Your task to perform on an android device: Go to battery settings Image 0: 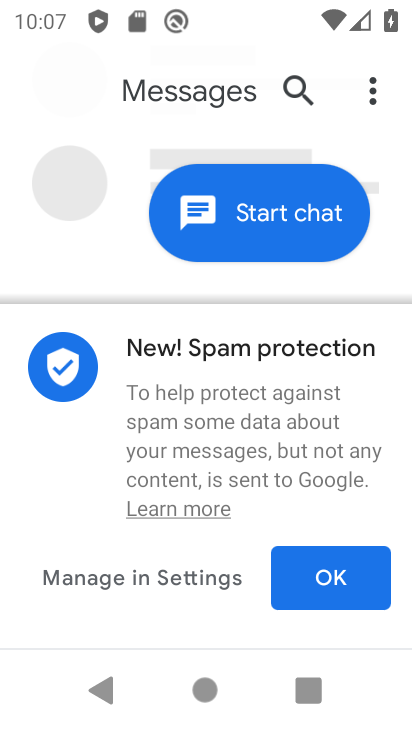
Step 0: press home button
Your task to perform on an android device: Go to battery settings Image 1: 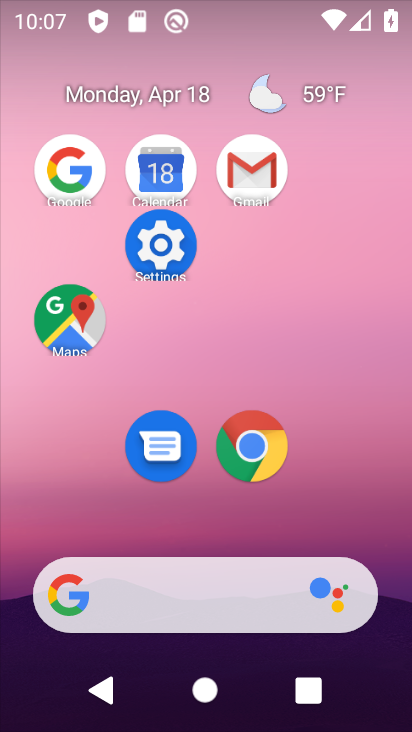
Step 1: click (165, 231)
Your task to perform on an android device: Go to battery settings Image 2: 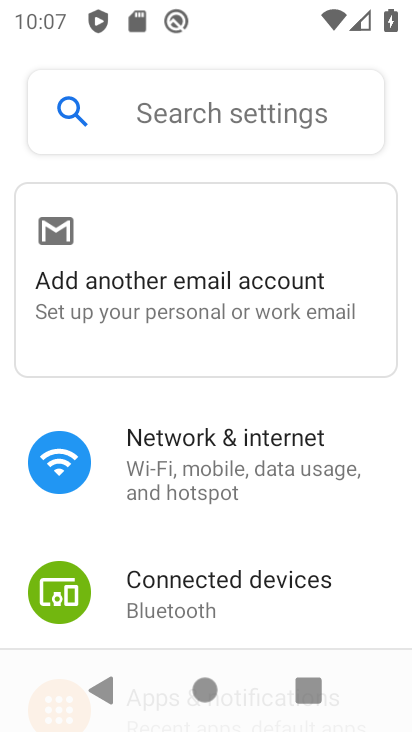
Step 2: drag from (256, 569) to (247, 128)
Your task to perform on an android device: Go to battery settings Image 3: 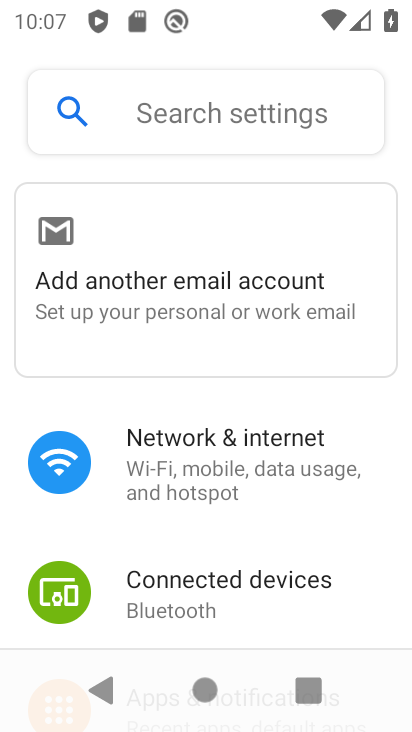
Step 3: drag from (312, 601) to (326, 488)
Your task to perform on an android device: Go to battery settings Image 4: 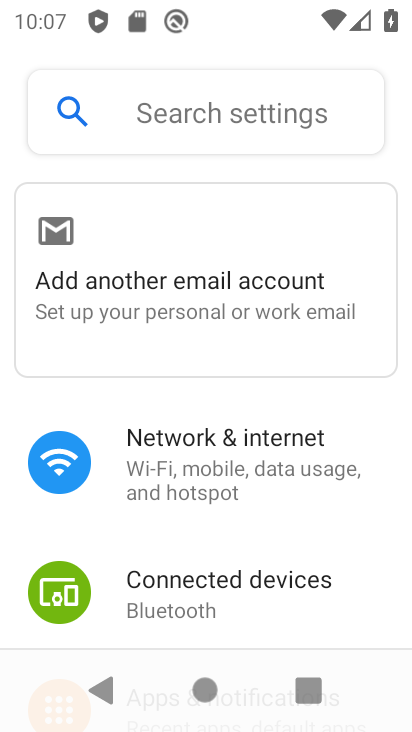
Step 4: drag from (265, 540) to (312, 187)
Your task to perform on an android device: Go to battery settings Image 5: 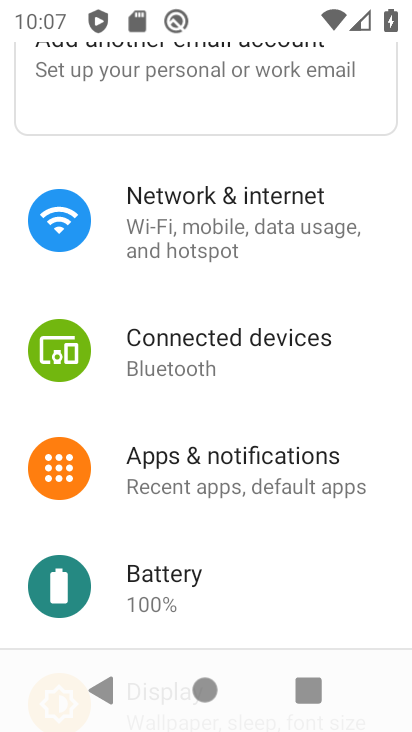
Step 5: drag from (217, 566) to (271, 362)
Your task to perform on an android device: Go to battery settings Image 6: 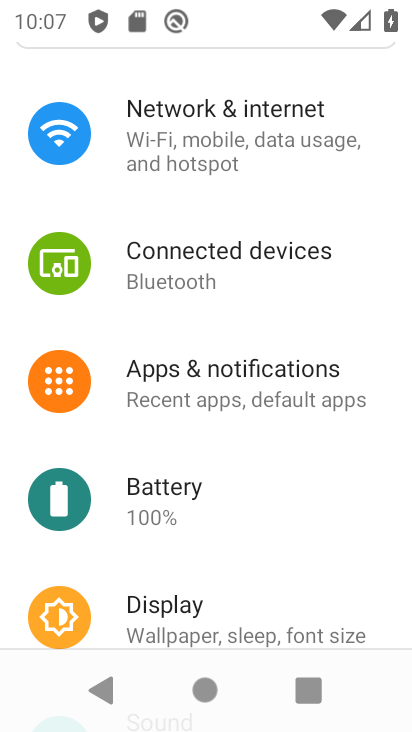
Step 6: click (157, 498)
Your task to perform on an android device: Go to battery settings Image 7: 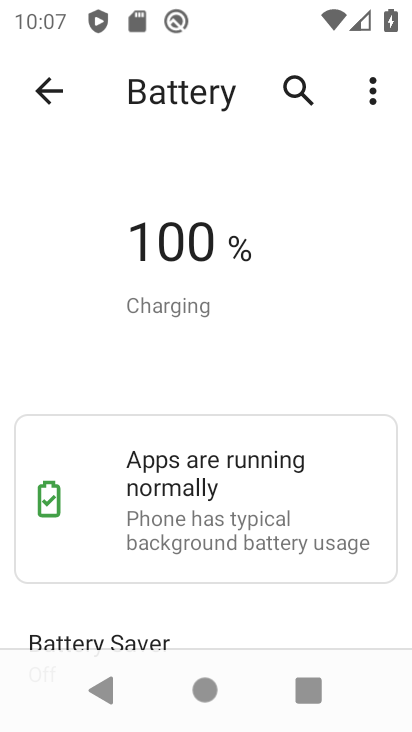
Step 7: task complete